Your task to perform on an android device: set default search engine in the chrome app Image 0: 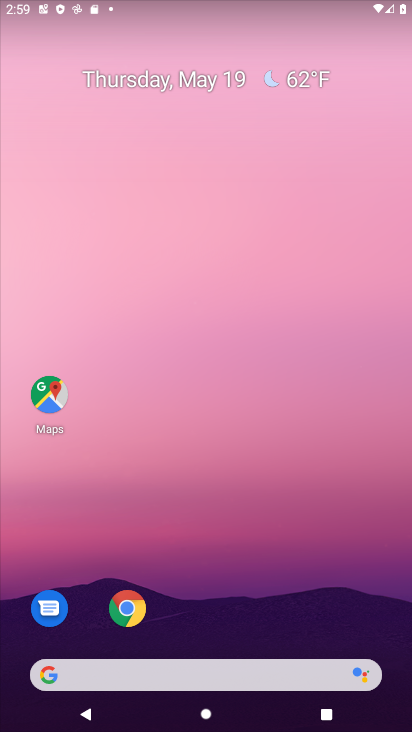
Step 0: click (142, 614)
Your task to perform on an android device: set default search engine in the chrome app Image 1: 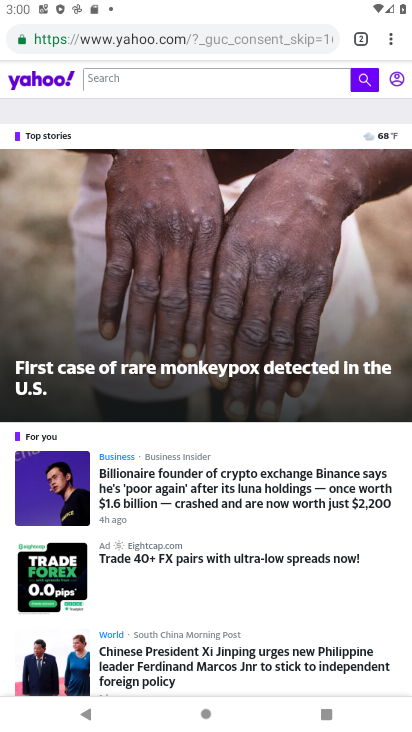
Step 1: click (388, 31)
Your task to perform on an android device: set default search engine in the chrome app Image 2: 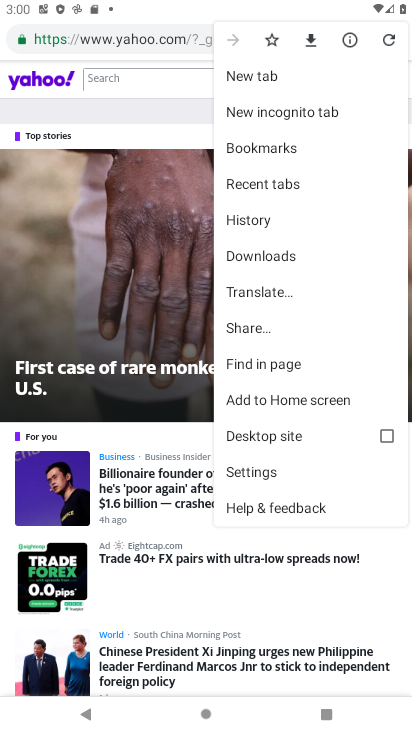
Step 2: click (296, 479)
Your task to perform on an android device: set default search engine in the chrome app Image 3: 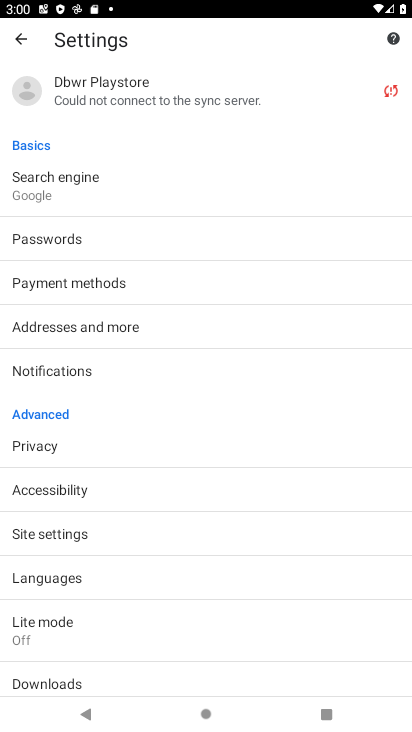
Step 3: click (226, 180)
Your task to perform on an android device: set default search engine in the chrome app Image 4: 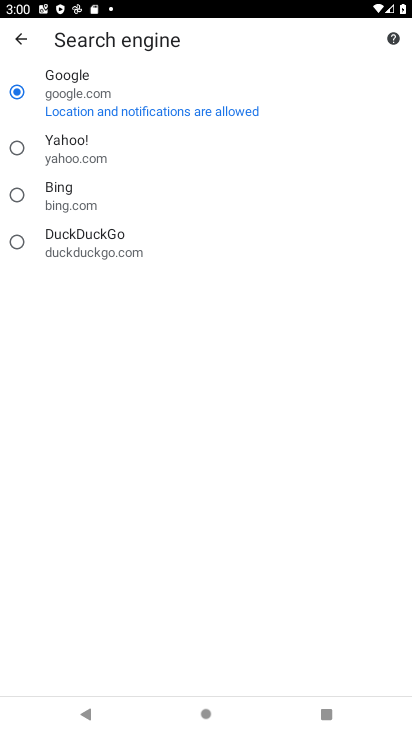
Step 4: click (145, 150)
Your task to perform on an android device: set default search engine in the chrome app Image 5: 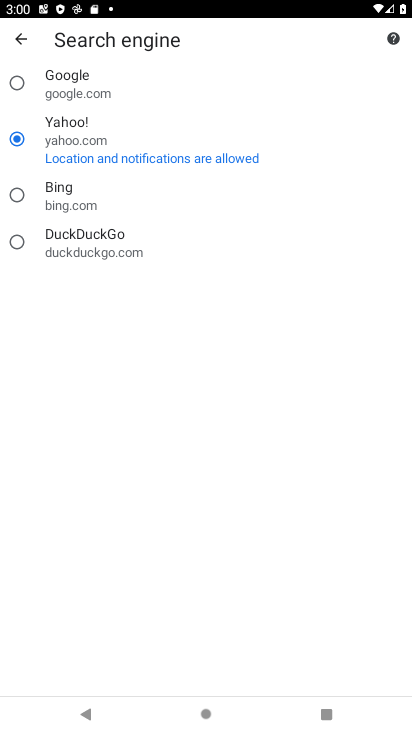
Step 5: task complete